Your task to perform on an android device: What's the weather? Image 0: 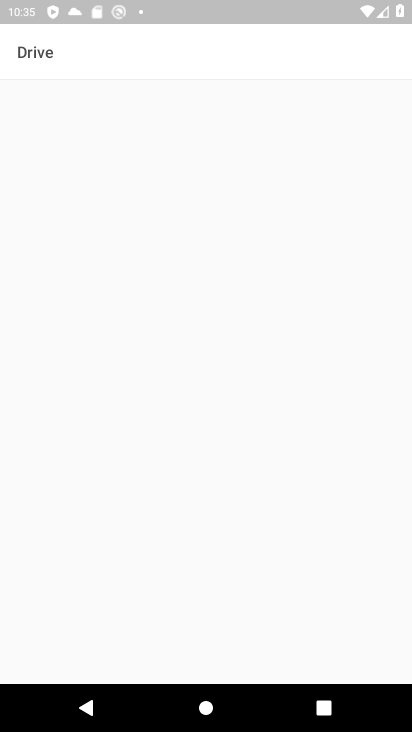
Step 0: press home button
Your task to perform on an android device: What's the weather? Image 1: 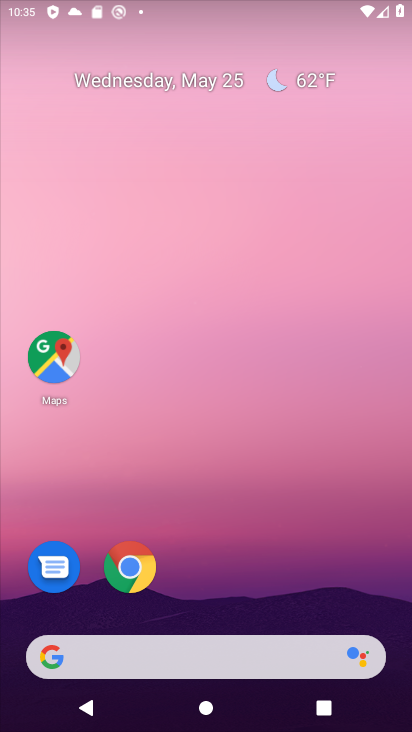
Step 1: drag from (325, 599) to (284, 51)
Your task to perform on an android device: What's the weather? Image 2: 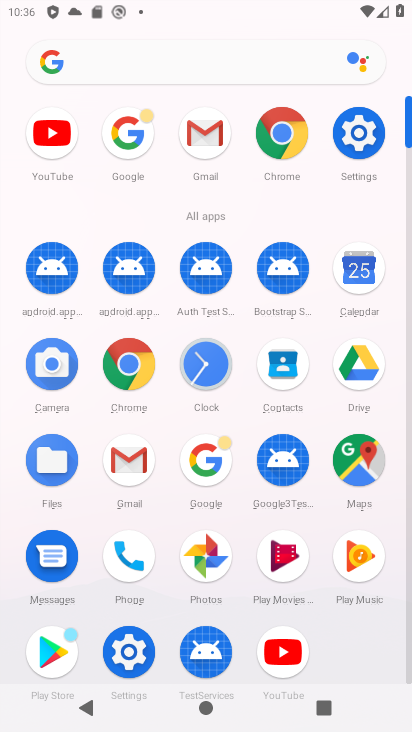
Step 2: click (210, 464)
Your task to perform on an android device: What's the weather? Image 3: 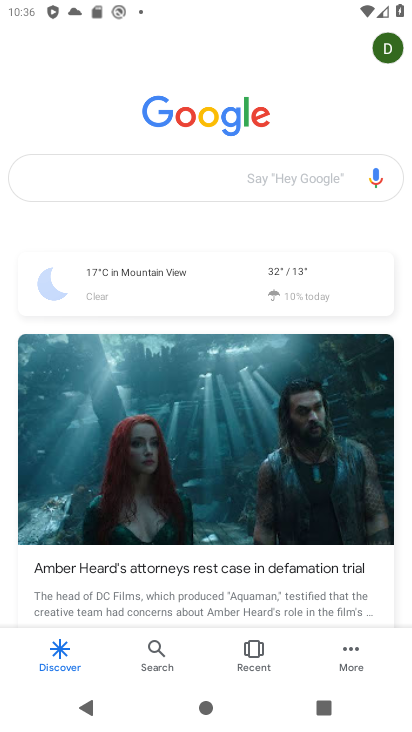
Step 3: click (98, 189)
Your task to perform on an android device: What's the weather? Image 4: 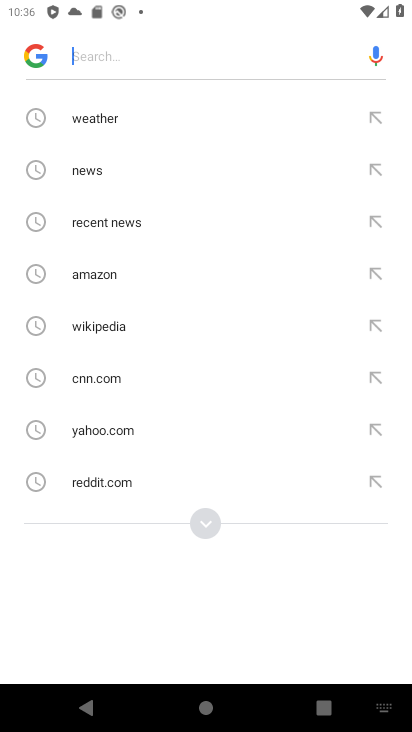
Step 4: click (113, 132)
Your task to perform on an android device: What's the weather? Image 5: 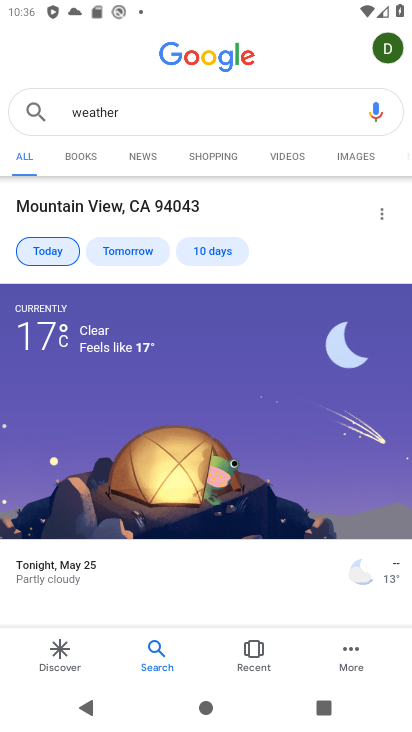
Step 5: task complete